Your task to perform on an android device: Open accessibility settings Image 0: 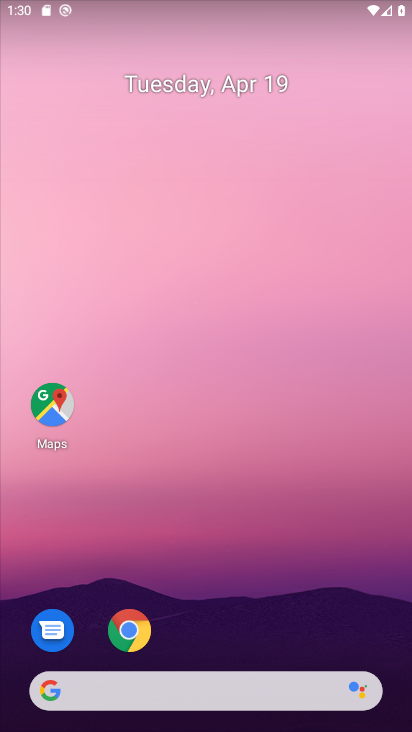
Step 0: drag from (194, 545) to (245, 126)
Your task to perform on an android device: Open accessibility settings Image 1: 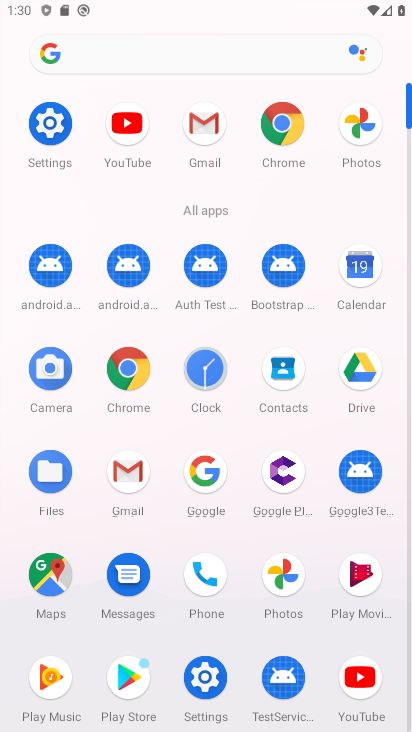
Step 1: click (48, 126)
Your task to perform on an android device: Open accessibility settings Image 2: 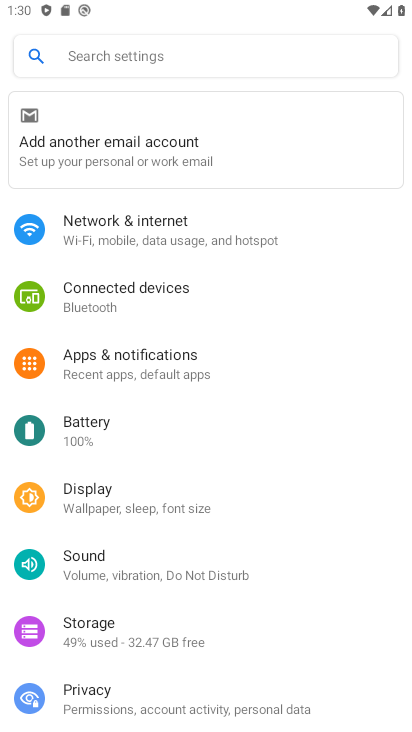
Step 2: drag from (287, 523) to (284, 83)
Your task to perform on an android device: Open accessibility settings Image 3: 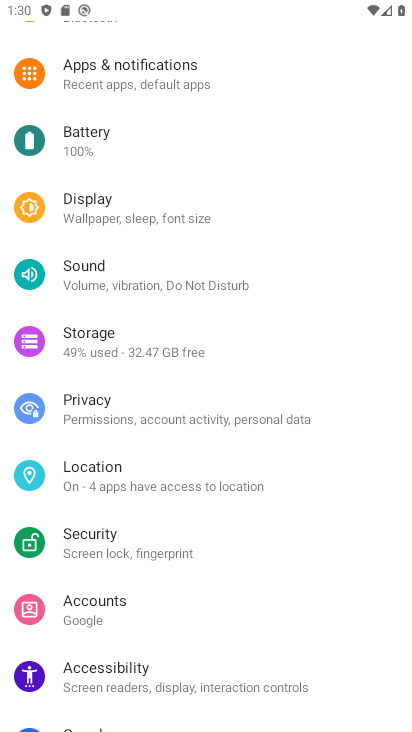
Step 3: drag from (184, 577) to (207, 94)
Your task to perform on an android device: Open accessibility settings Image 4: 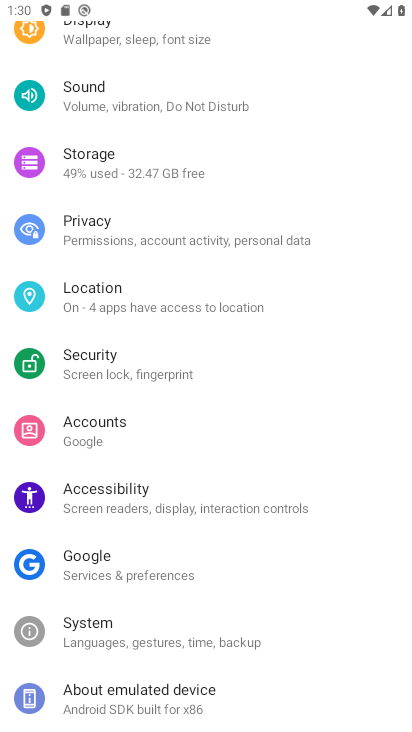
Step 4: click (148, 503)
Your task to perform on an android device: Open accessibility settings Image 5: 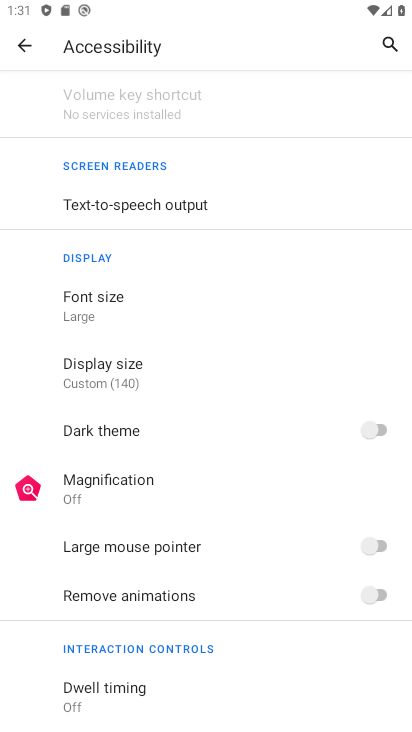
Step 5: task complete